Your task to perform on an android device: Open network settings Image 0: 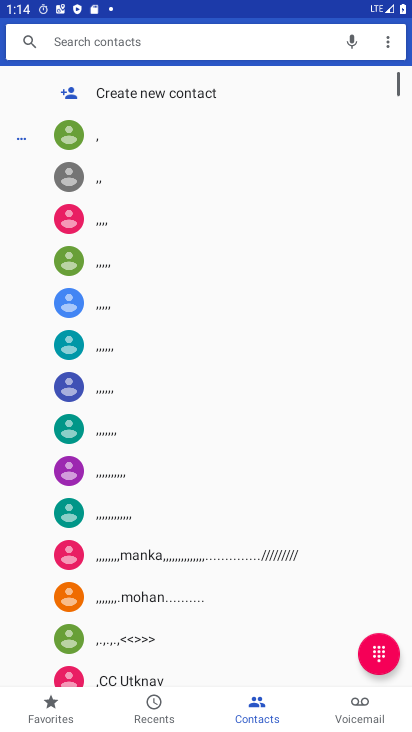
Step 0: drag from (255, 275) to (258, 95)
Your task to perform on an android device: Open network settings Image 1: 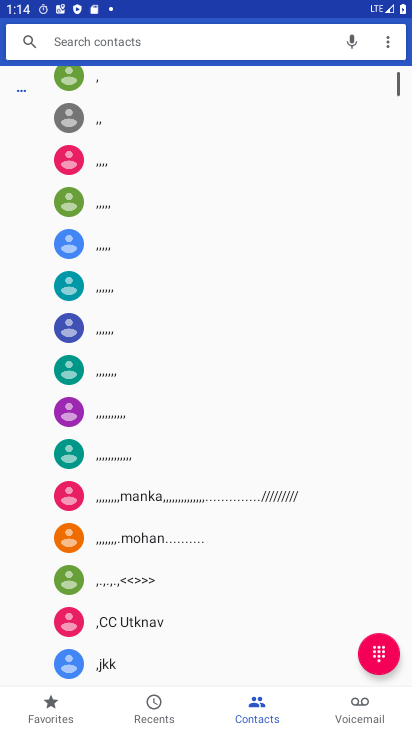
Step 1: press home button
Your task to perform on an android device: Open network settings Image 2: 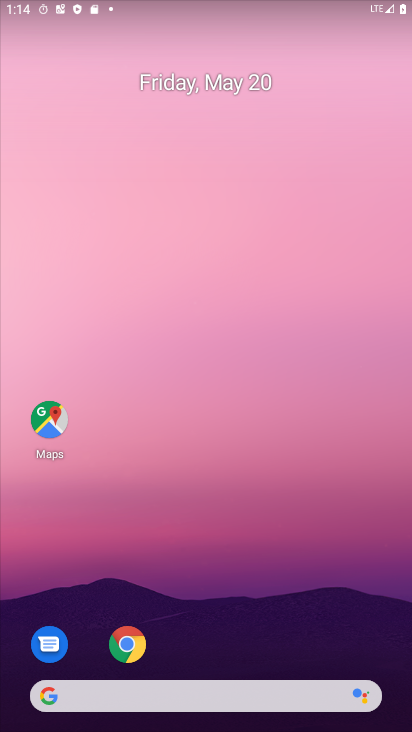
Step 2: drag from (339, 571) to (290, 13)
Your task to perform on an android device: Open network settings Image 3: 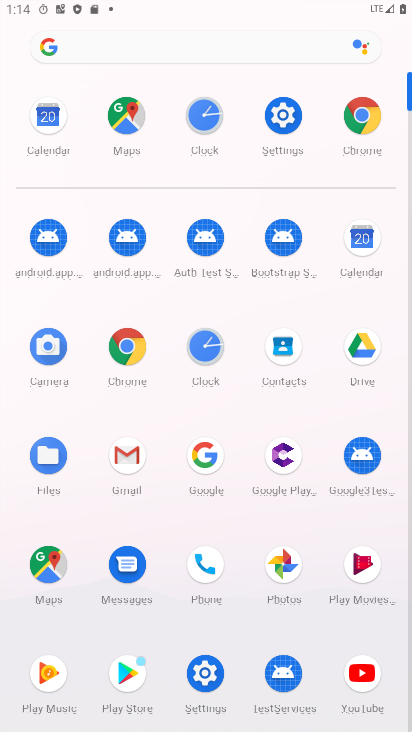
Step 3: click (283, 124)
Your task to perform on an android device: Open network settings Image 4: 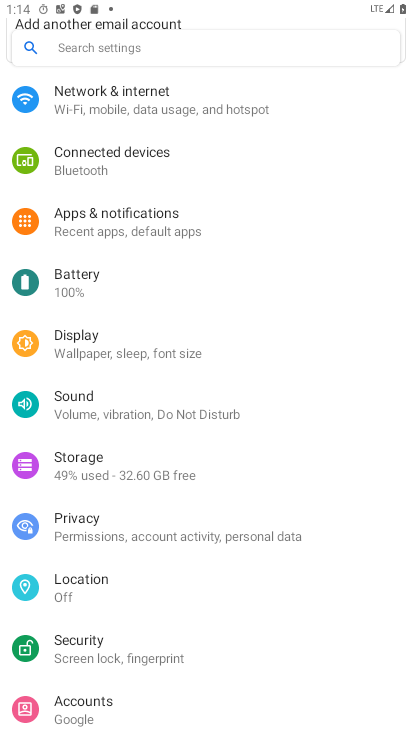
Step 4: drag from (175, 170) to (231, 502)
Your task to perform on an android device: Open network settings Image 5: 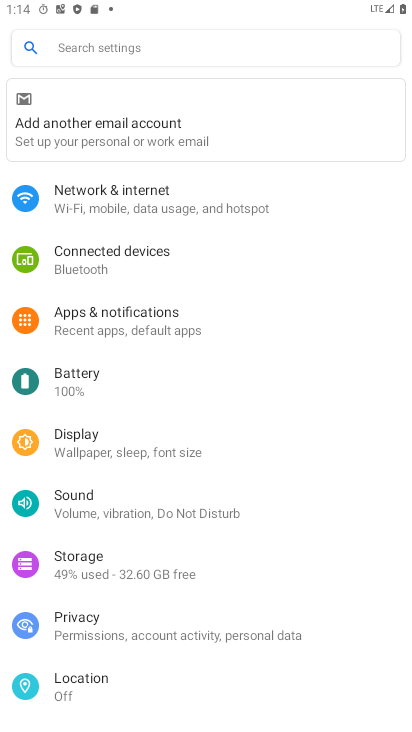
Step 5: click (156, 204)
Your task to perform on an android device: Open network settings Image 6: 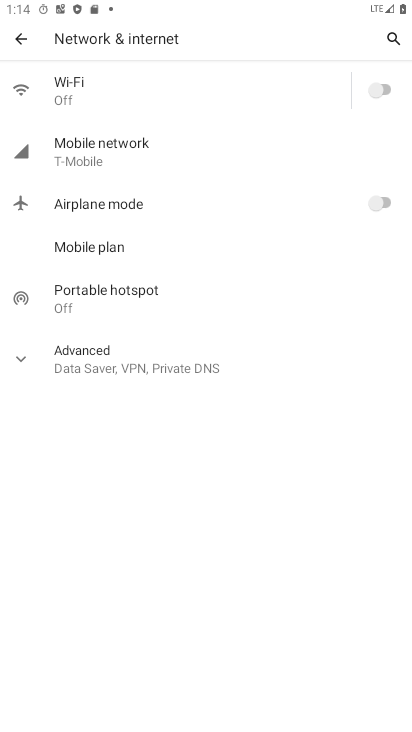
Step 6: task complete